Your task to perform on an android device: Go to network settings Image 0: 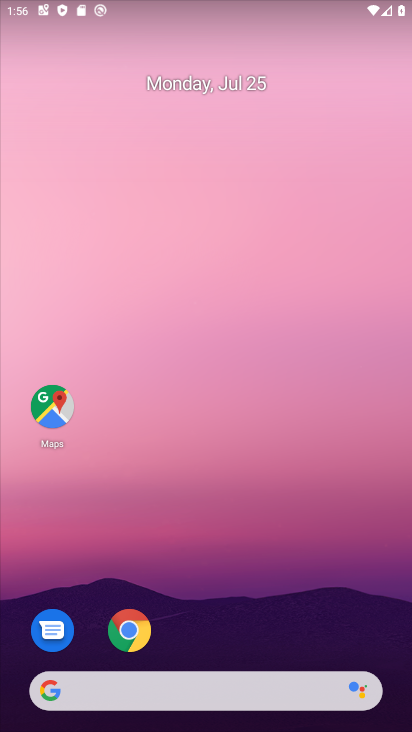
Step 0: drag from (241, 635) to (222, 101)
Your task to perform on an android device: Go to network settings Image 1: 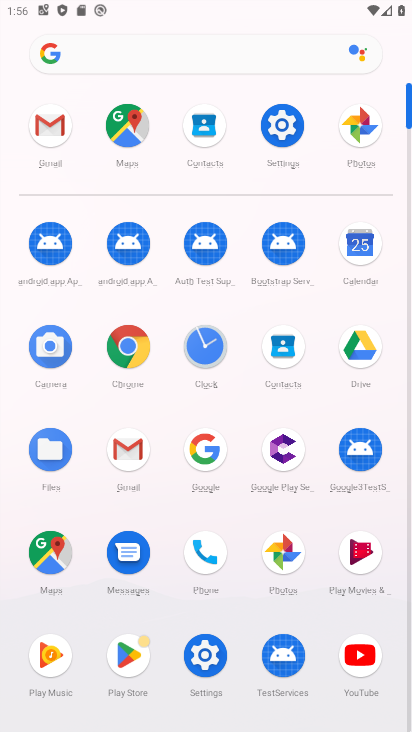
Step 1: click (284, 149)
Your task to perform on an android device: Go to network settings Image 2: 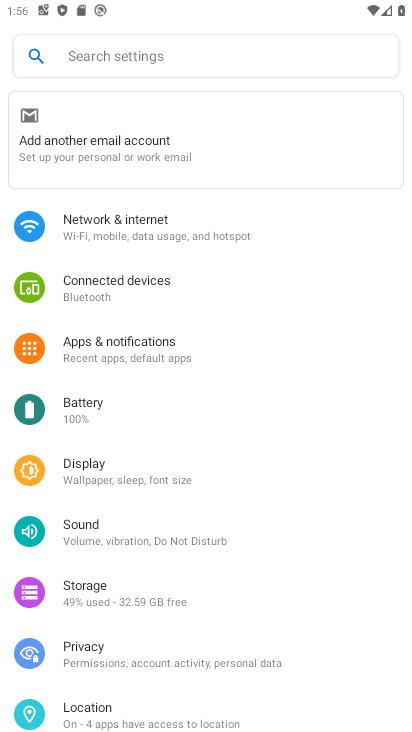
Step 2: click (161, 238)
Your task to perform on an android device: Go to network settings Image 3: 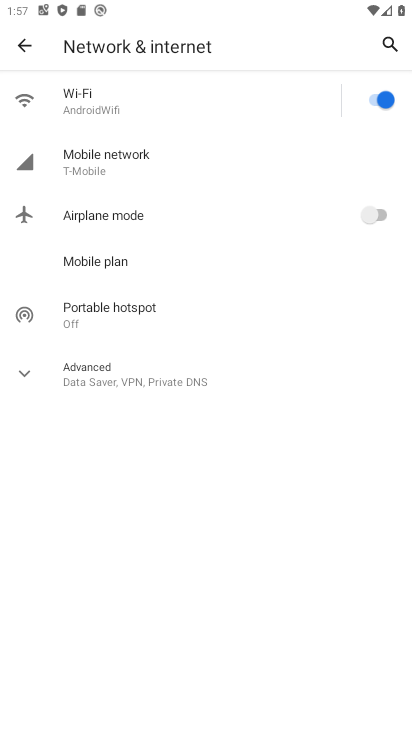
Step 3: task complete